Your task to perform on an android device: Open eBay Image 0: 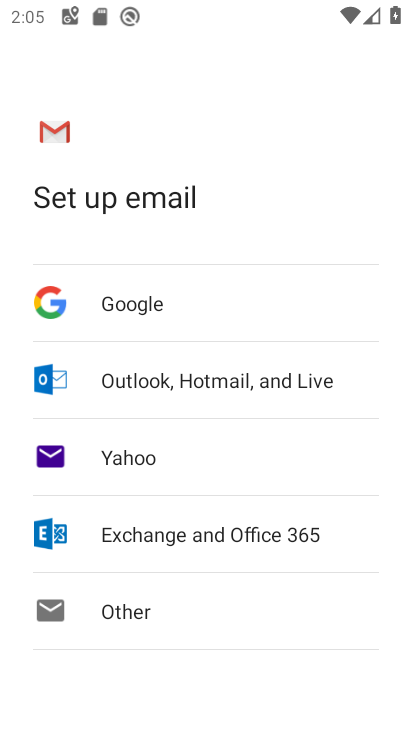
Step 0: press home button
Your task to perform on an android device: Open eBay Image 1: 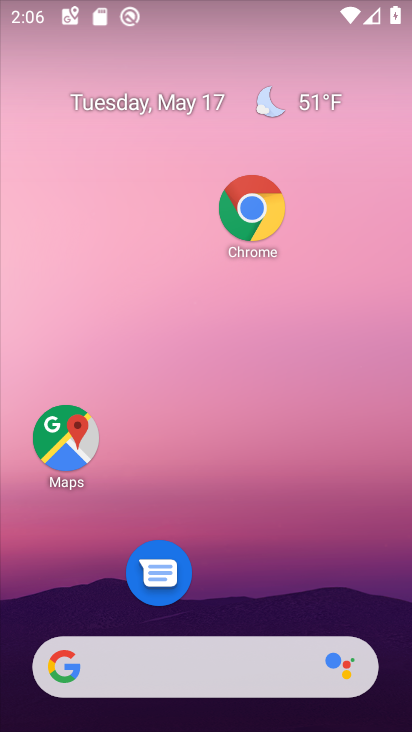
Step 1: click (250, 207)
Your task to perform on an android device: Open eBay Image 2: 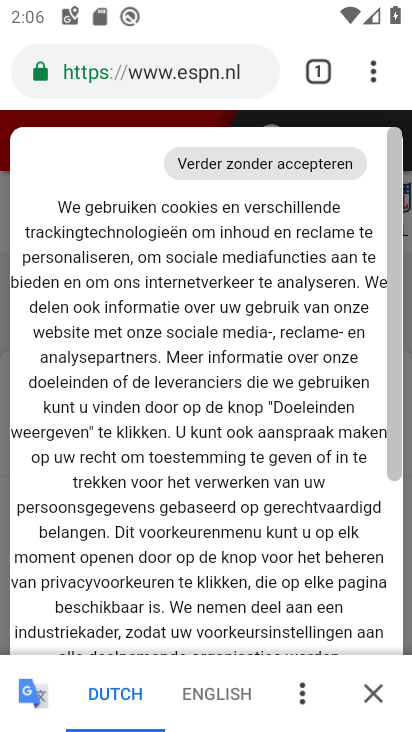
Step 2: click (367, 68)
Your task to perform on an android device: Open eBay Image 3: 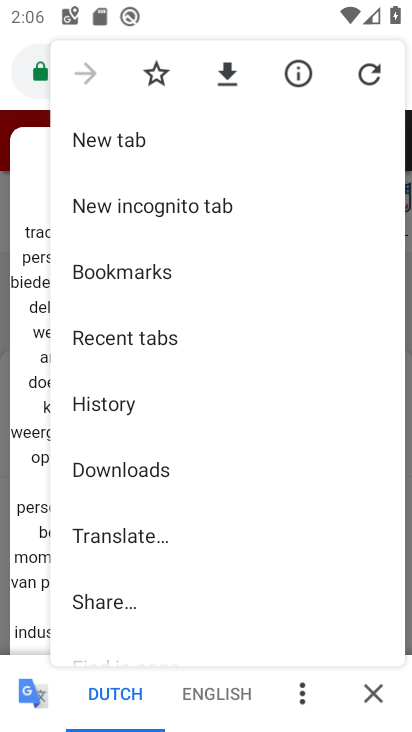
Step 3: drag from (180, 606) to (181, 281)
Your task to perform on an android device: Open eBay Image 4: 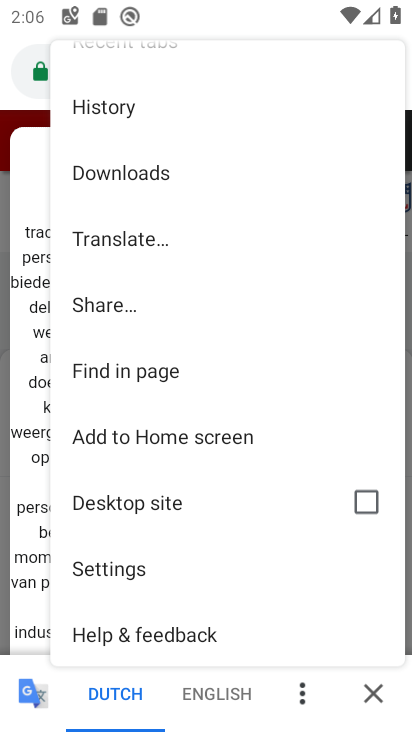
Step 4: click (373, 688)
Your task to perform on an android device: Open eBay Image 5: 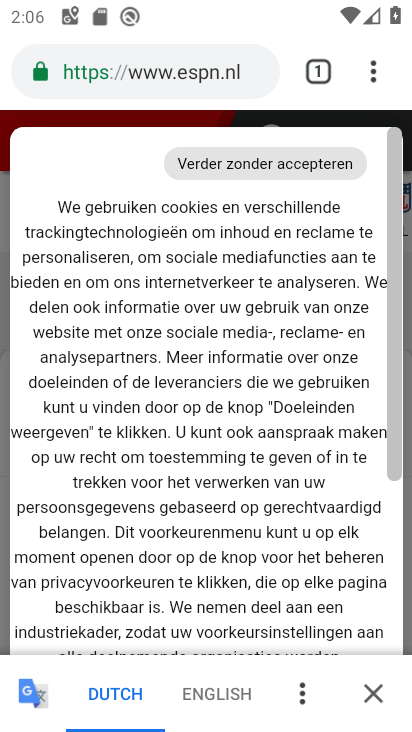
Step 5: click (317, 83)
Your task to perform on an android device: Open eBay Image 6: 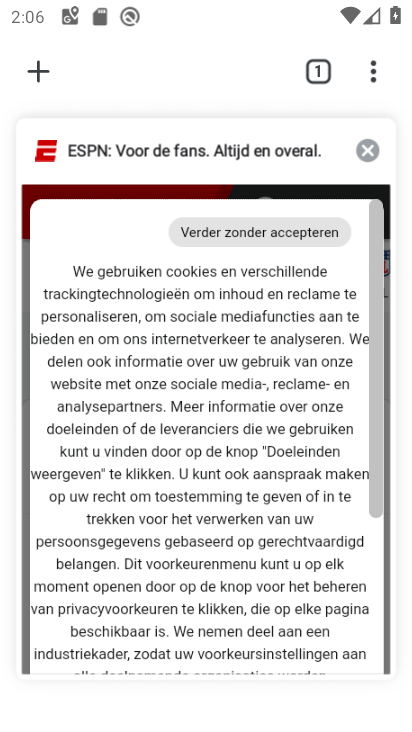
Step 6: click (38, 67)
Your task to perform on an android device: Open eBay Image 7: 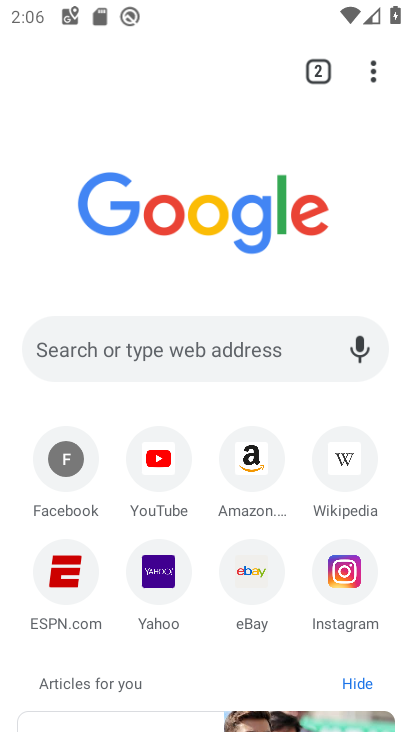
Step 7: click (276, 581)
Your task to perform on an android device: Open eBay Image 8: 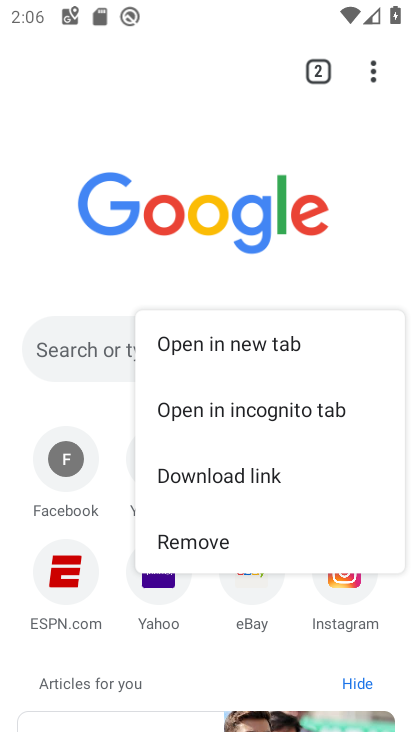
Step 8: click (248, 609)
Your task to perform on an android device: Open eBay Image 9: 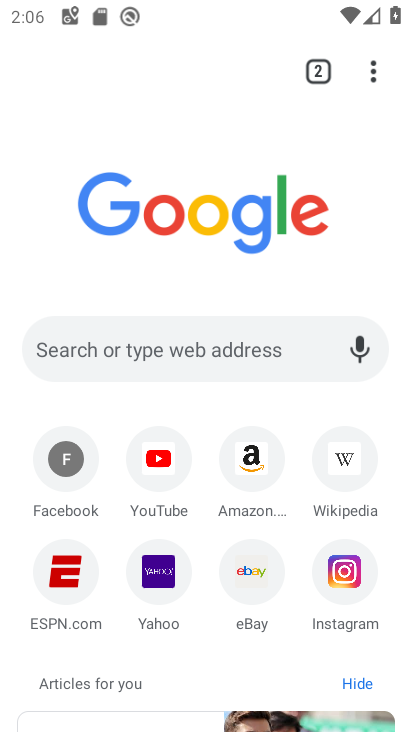
Step 9: click (250, 599)
Your task to perform on an android device: Open eBay Image 10: 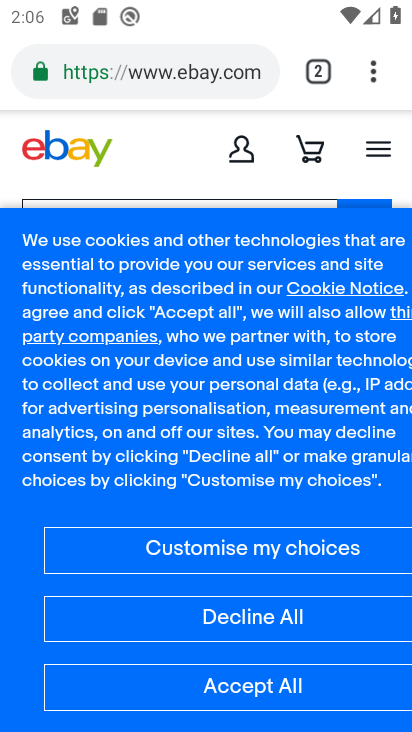
Step 10: task complete